Your task to perform on an android device: Add acer nitro to the cart on ebay.com, then select checkout. Image 0: 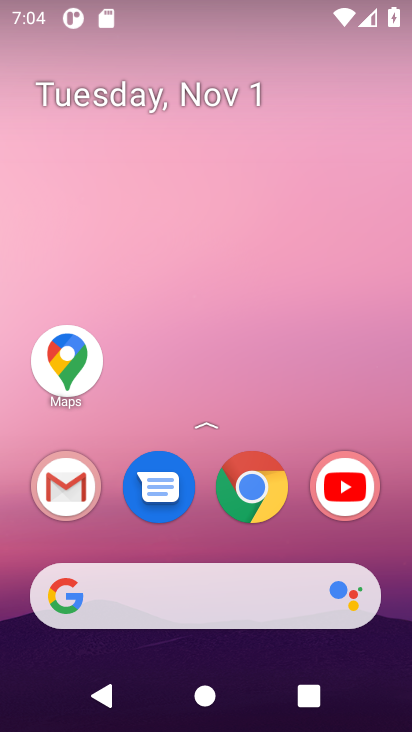
Step 0: press home button
Your task to perform on an android device: Add acer nitro to the cart on ebay.com, then select checkout. Image 1: 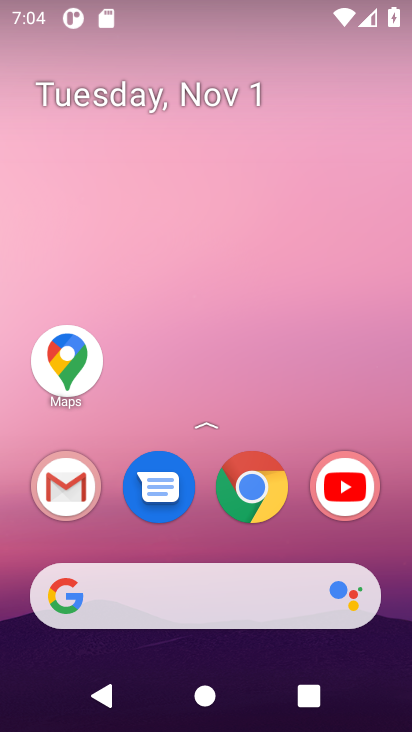
Step 1: drag from (201, 438) to (220, 0)
Your task to perform on an android device: Add acer nitro to the cart on ebay.com, then select checkout. Image 2: 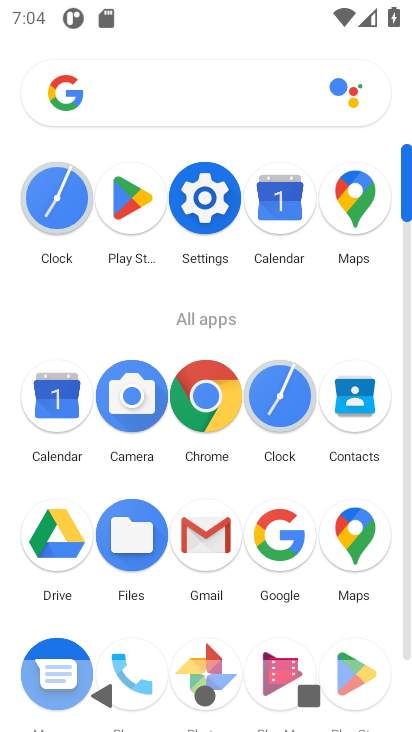
Step 2: click (201, 400)
Your task to perform on an android device: Add acer nitro to the cart on ebay.com, then select checkout. Image 3: 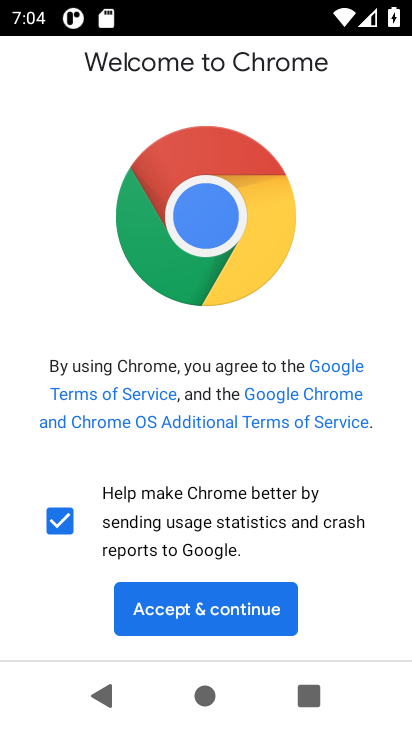
Step 3: click (199, 602)
Your task to perform on an android device: Add acer nitro to the cart on ebay.com, then select checkout. Image 4: 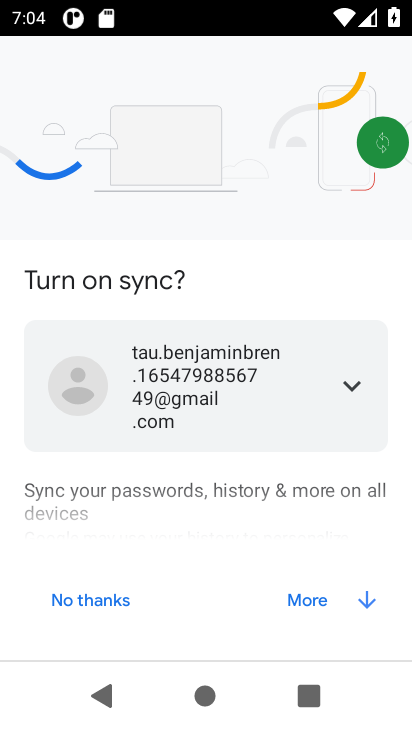
Step 4: click (301, 598)
Your task to perform on an android device: Add acer nitro to the cart on ebay.com, then select checkout. Image 5: 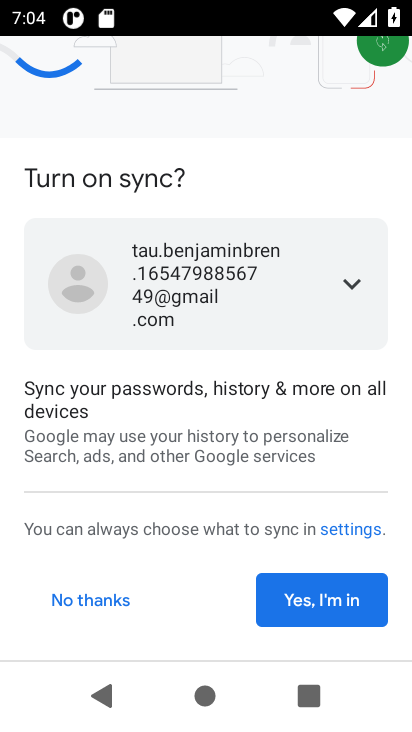
Step 5: click (314, 595)
Your task to perform on an android device: Add acer nitro to the cart on ebay.com, then select checkout. Image 6: 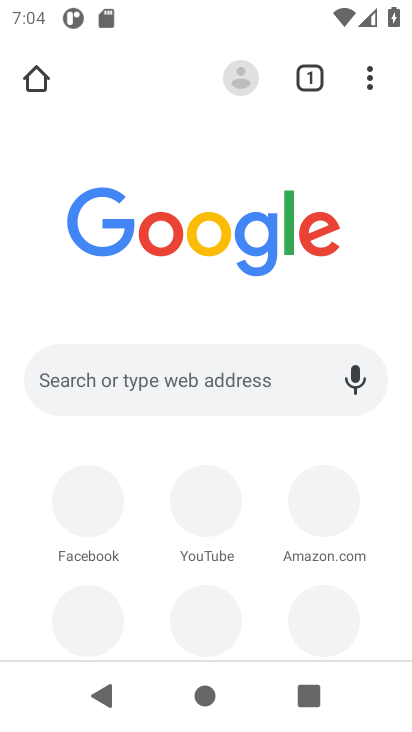
Step 6: click (90, 381)
Your task to perform on an android device: Add acer nitro to the cart on ebay.com, then select checkout. Image 7: 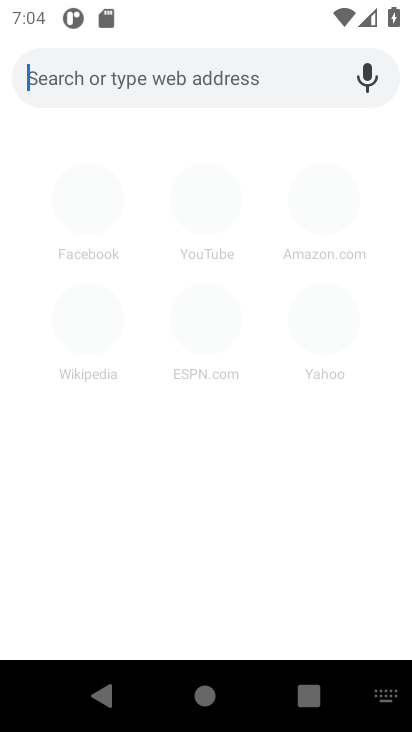
Step 7: type "ebay.com"
Your task to perform on an android device: Add acer nitro to the cart on ebay.com, then select checkout. Image 8: 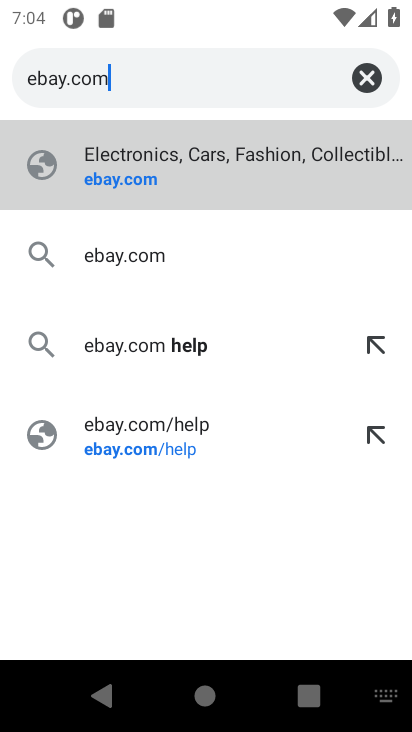
Step 8: click (135, 186)
Your task to perform on an android device: Add acer nitro to the cart on ebay.com, then select checkout. Image 9: 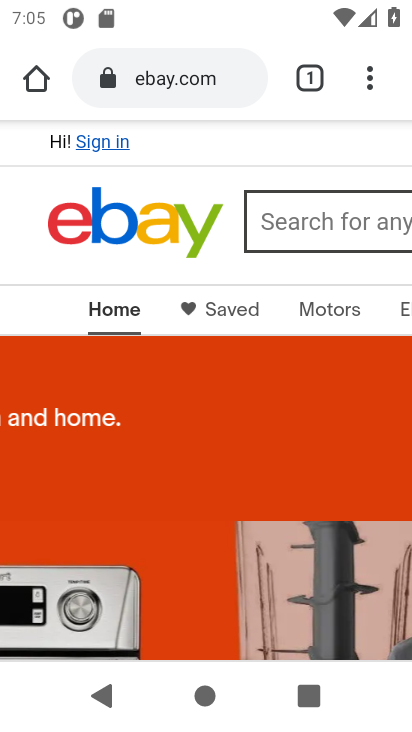
Step 9: click (308, 226)
Your task to perform on an android device: Add acer nitro to the cart on ebay.com, then select checkout. Image 10: 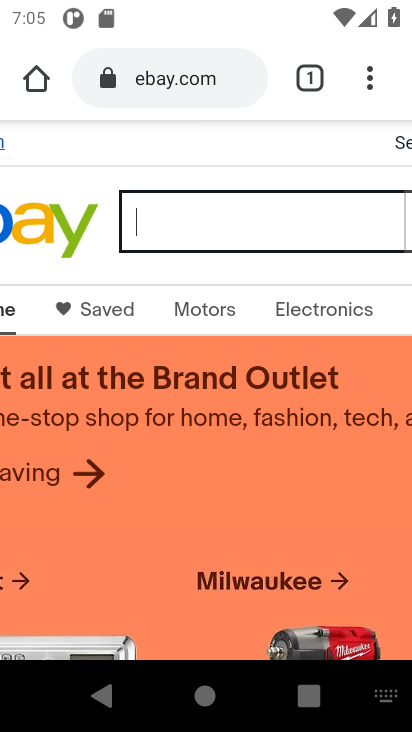
Step 10: type "acer nitro"
Your task to perform on an android device: Add acer nitro to the cart on ebay.com, then select checkout. Image 11: 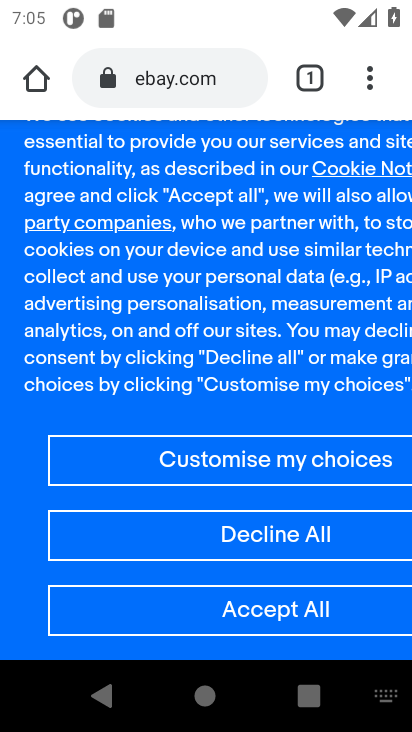
Step 11: click (320, 622)
Your task to perform on an android device: Add acer nitro to the cart on ebay.com, then select checkout. Image 12: 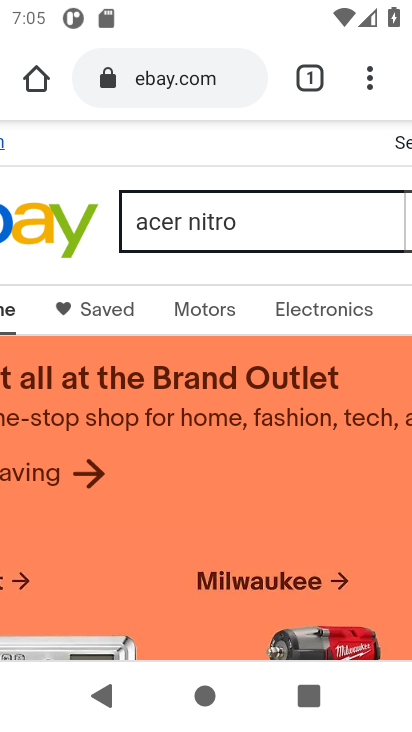
Step 12: drag from (310, 279) to (14, 272)
Your task to perform on an android device: Add acer nitro to the cart on ebay.com, then select checkout. Image 13: 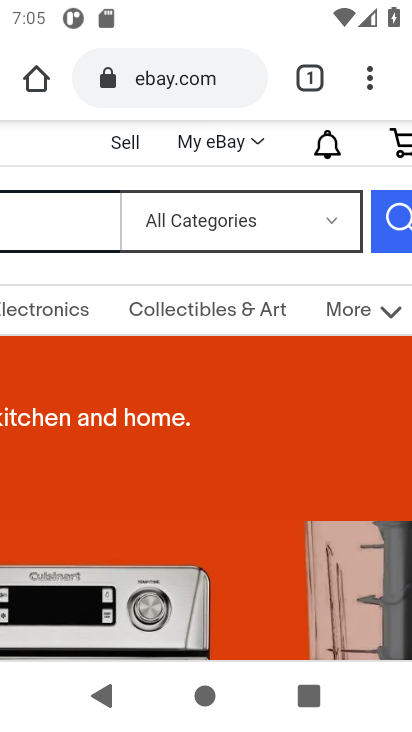
Step 13: click (396, 223)
Your task to perform on an android device: Add acer nitro to the cart on ebay.com, then select checkout. Image 14: 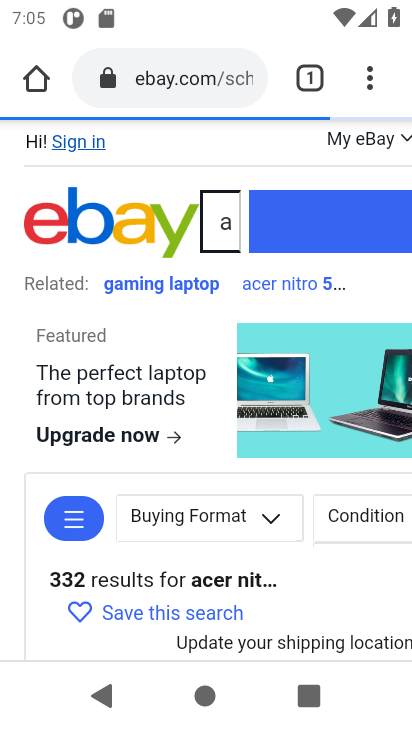
Step 14: drag from (292, 595) to (315, 238)
Your task to perform on an android device: Add acer nitro to the cart on ebay.com, then select checkout. Image 15: 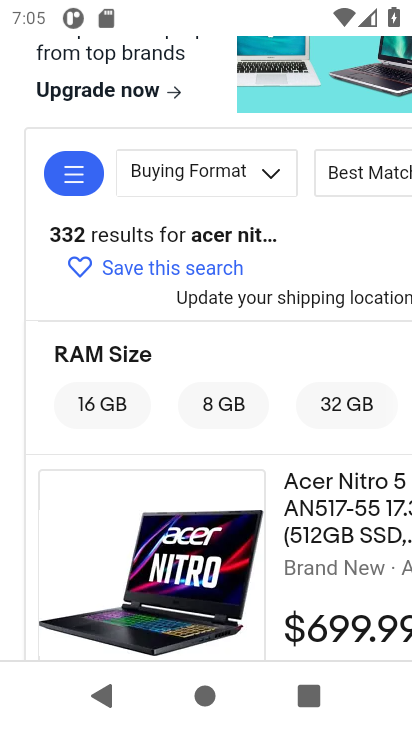
Step 15: click (323, 516)
Your task to perform on an android device: Add acer nitro to the cart on ebay.com, then select checkout. Image 16: 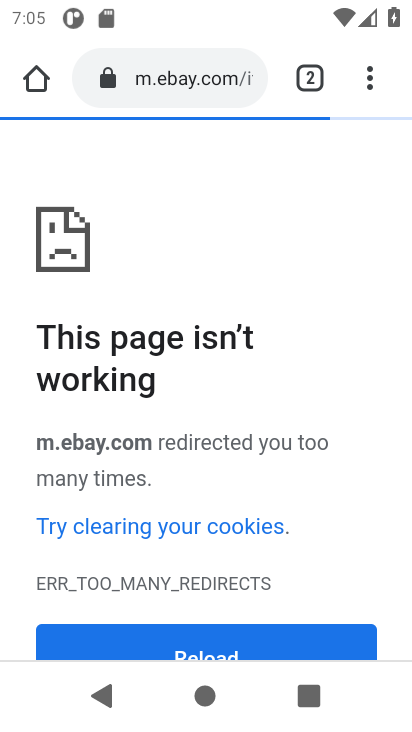
Step 16: press back button
Your task to perform on an android device: Add acer nitro to the cart on ebay.com, then select checkout. Image 17: 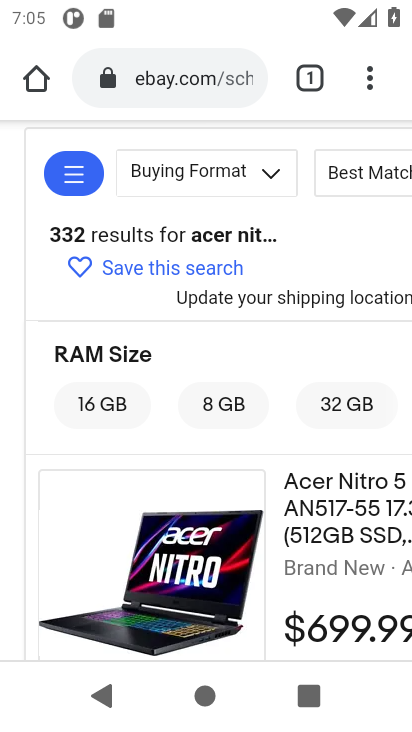
Step 17: drag from (300, 560) to (324, 184)
Your task to perform on an android device: Add acer nitro to the cart on ebay.com, then select checkout. Image 18: 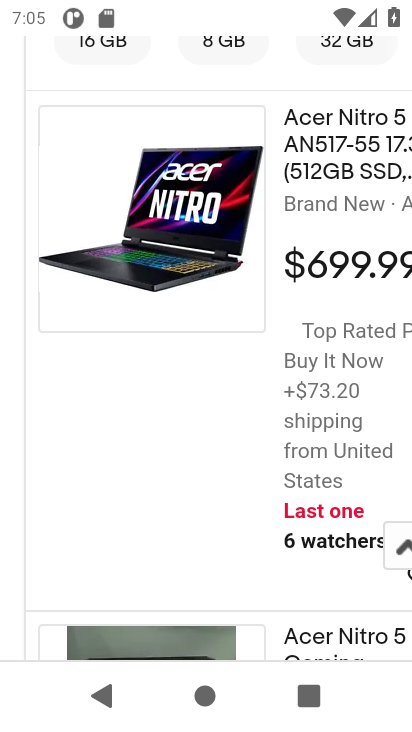
Step 18: drag from (307, 577) to (339, 241)
Your task to perform on an android device: Add acer nitro to the cart on ebay.com, then select checkout. Image 19: 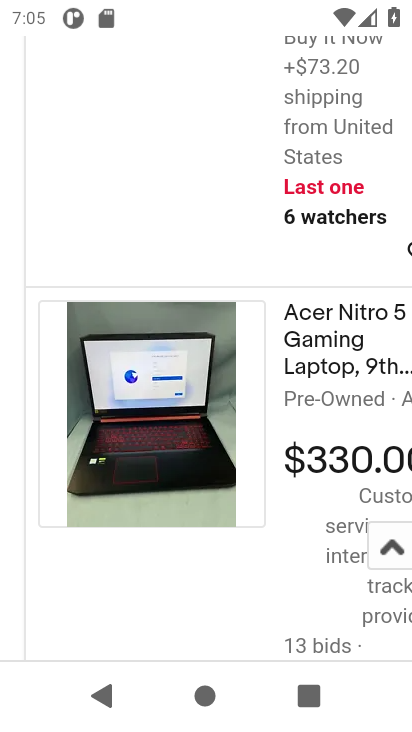
Step 19: click (327, 355)
Your task to perform on an android device: Add acer nitro to the cart on ebay.com, then select checkout. Image 20: 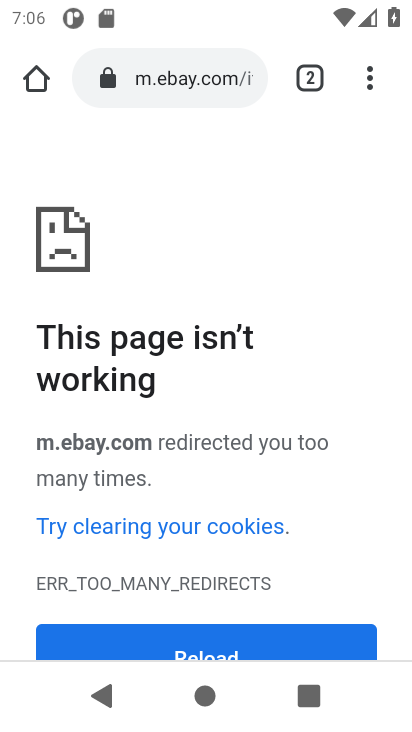
Step 20: click (225, 643)
Your task to perform on an android device: Add acer nitro to the cart on ebay.com, then select checkout. Image 21: 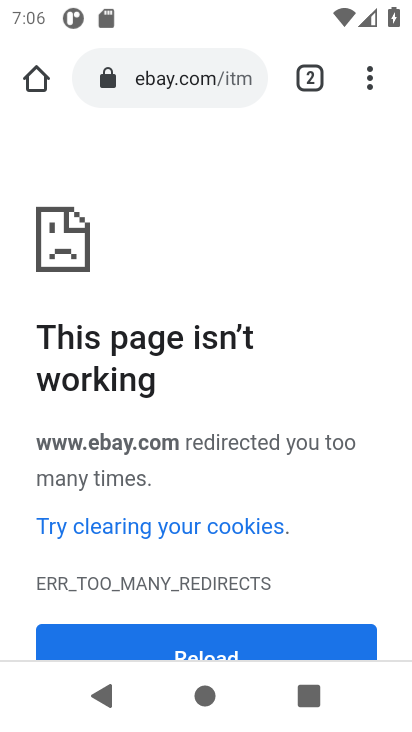
Step 21: press back button
Your task to perform on an android device: Add acer nitro to the cart on ebay.com, then select checkout. Image 22: 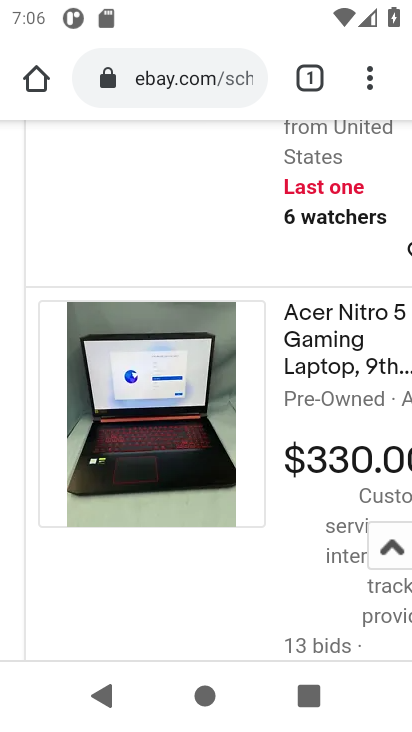
Step 22: drag from (296, 538) to (309, 207)
Your task to perform on an android device: Add acer nitro to the cart on ebay.com, then select checkout. Image 23: 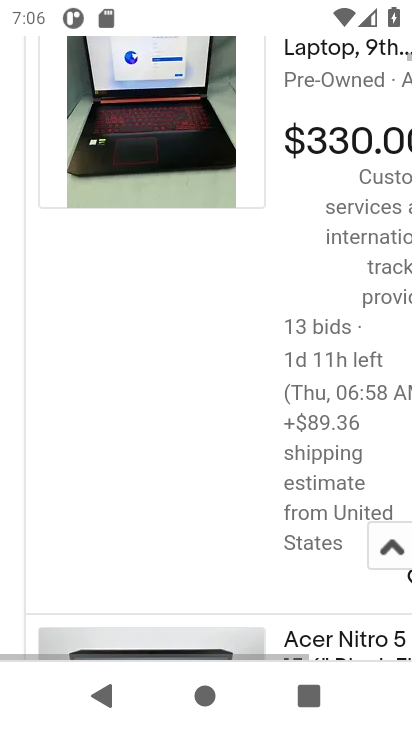
Step 23: drag from (272, 596) to (305, 246)
Your task to perform on an android device: Add acer nitro to the cart on ebay.com, then select checkout. Image 24: 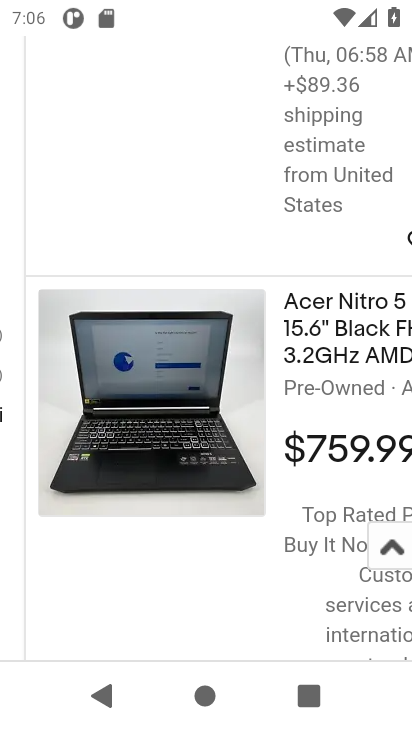
Step 24: click (368, 357)
Your task to perform on an android device: Add acer nitro to the cart on ebay.com, then select checkout. Image 25: 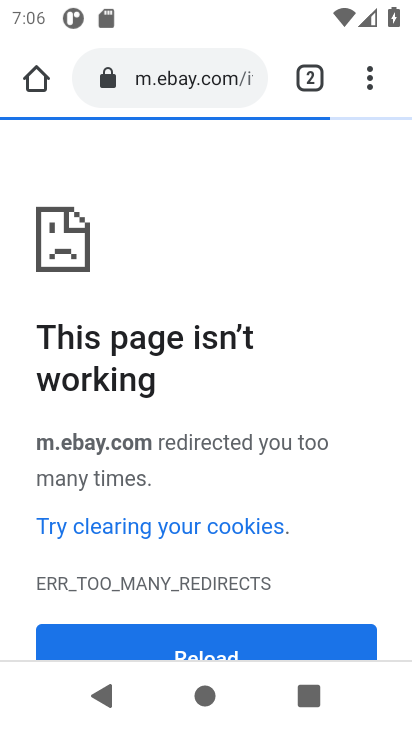
Step 25: task complete